Your task to perform on an android device: open a bookmark in the chrome app Image 0: 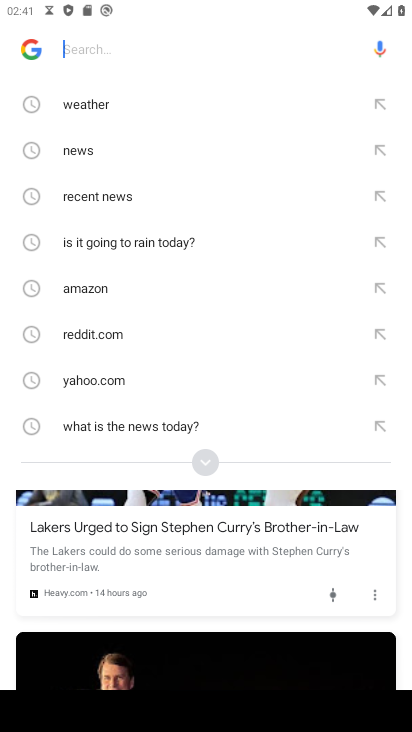
Step 0: press home button
Your task to perform on an android device: open a bookmark in the chrome app Image 1: 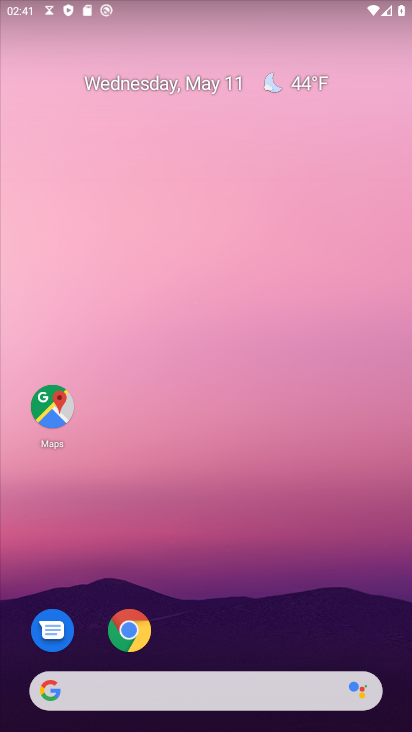
Step 1: click (135, 631)
Your task to perform on an android device: open a bookmark in the chrome app Image 2: 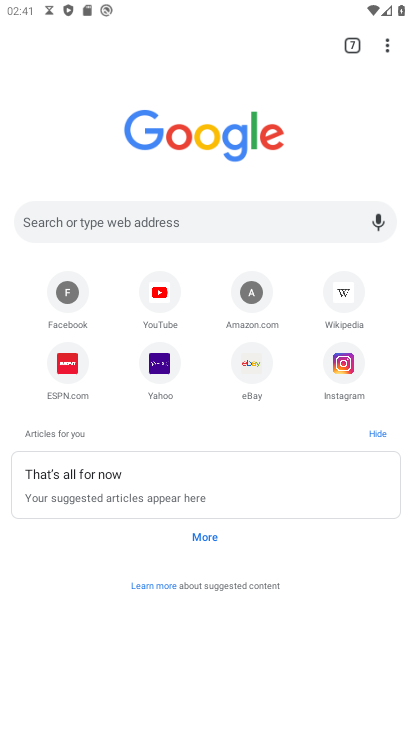
Step 2: click (386, 47)
Your task to perform on an android device: open a bookmark in the chrome app Image 3: 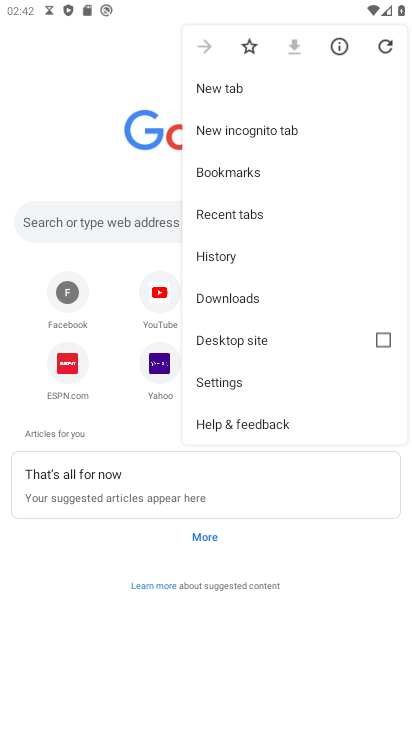
Step 3: click (222, 171)
Your task to perform on an android device: open a bookmark in the chrome app Image 4: 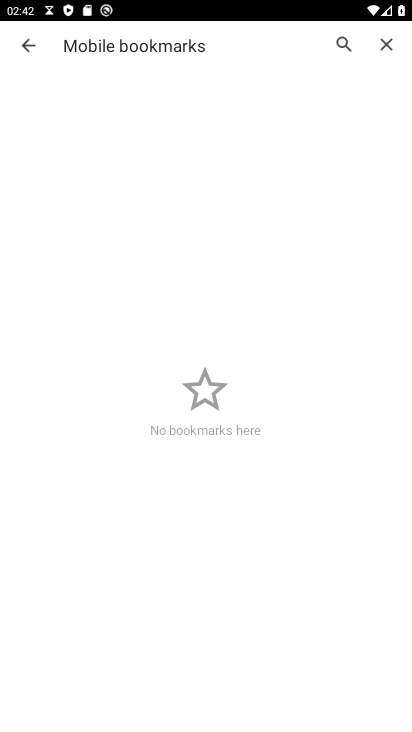
Step 4: task complete